Your task to perform on an android device: clear history in the chrome app Image 0: 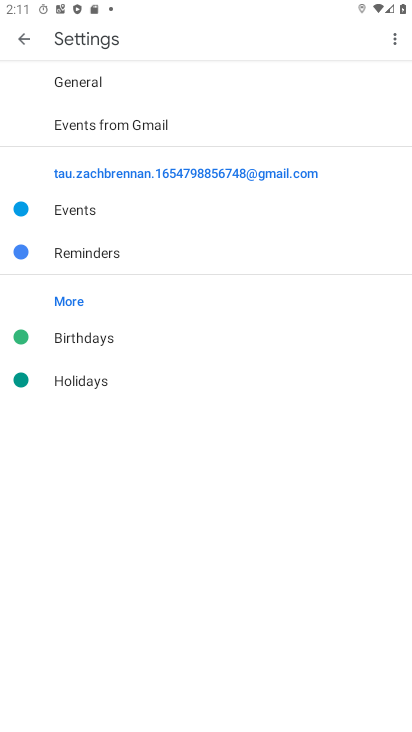
Step 0: press home button
Your task to perform on an android device: clear history in the chrome app Image 1: 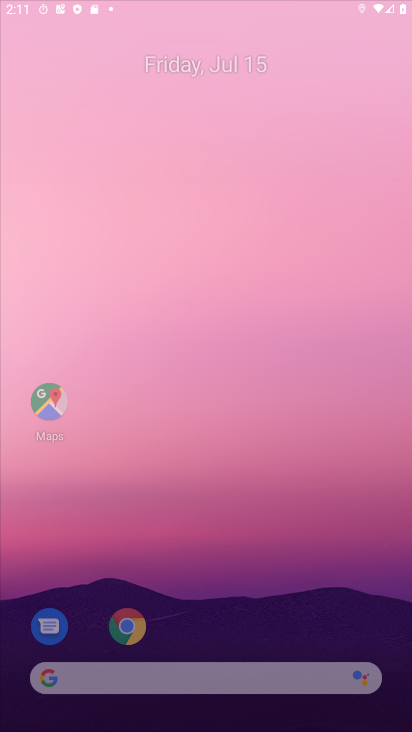
Step 1: drag from (366, 673) to (315, 4)
Your task to perform on an android device: clear history in the chrome app Image 2: 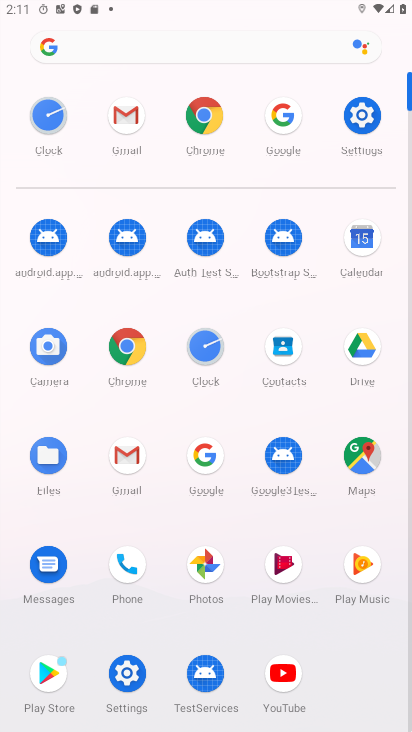
Step 2: click (217, 108)
Your task to perform on an android device: clear history in the chrome app Image 3: 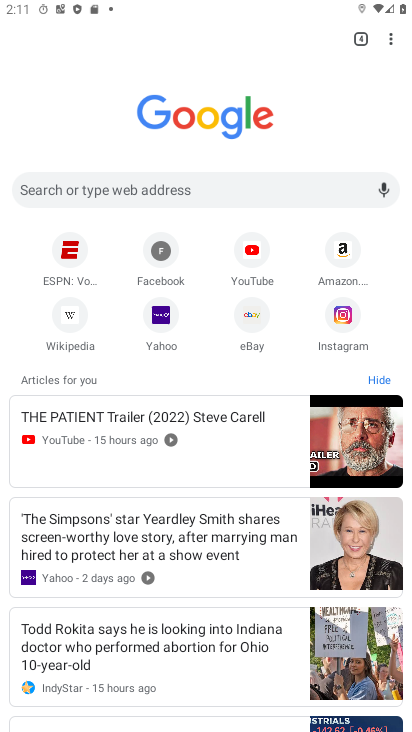
Step 3: click (389, 35)
Your task to perform on an android device: clear history in the chrome app Image 4: 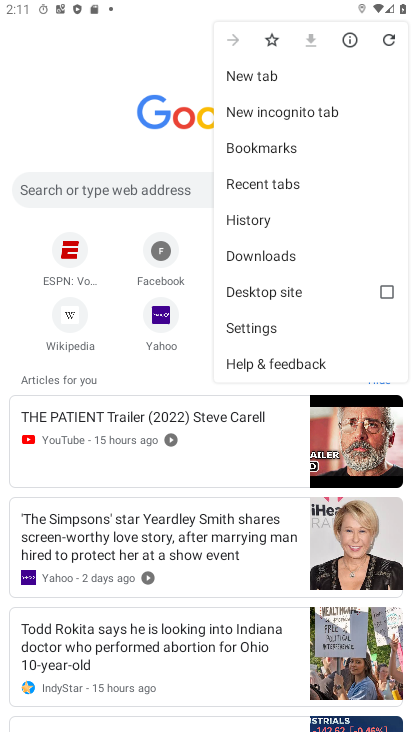
Step 4: click (267, 221)
Your task to perform on an android device: clear history in the chrome app Image 5: 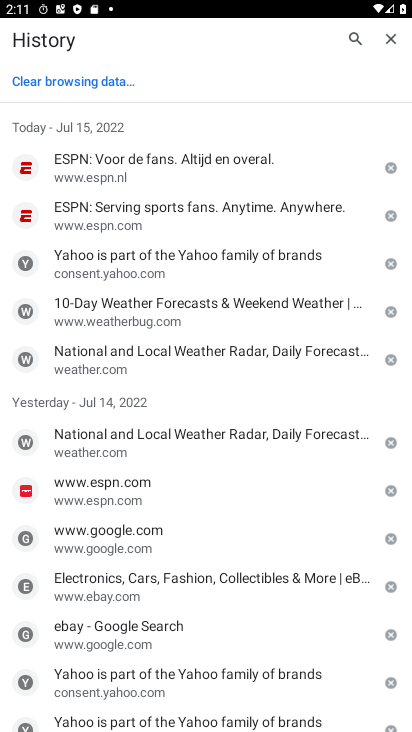
Step 5: click (64, 85)
Your task to perform on an android device: clear history in the chrome app Image 6: 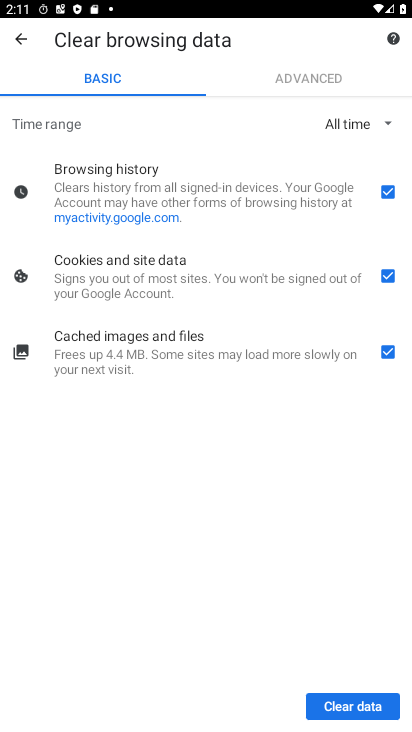
Step 6: click (342, 698)
Your task to perform on an android device: clear history in the chrome app Image 7: 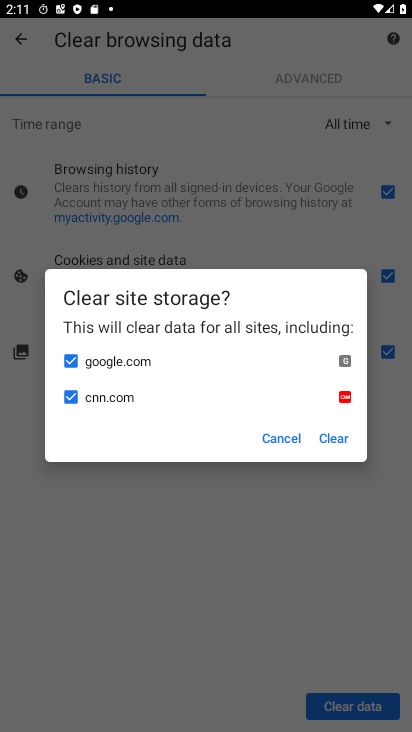
Step 7: click (337, 436)
Your task to perform on an android device: clear history in the chrome app Image 8: 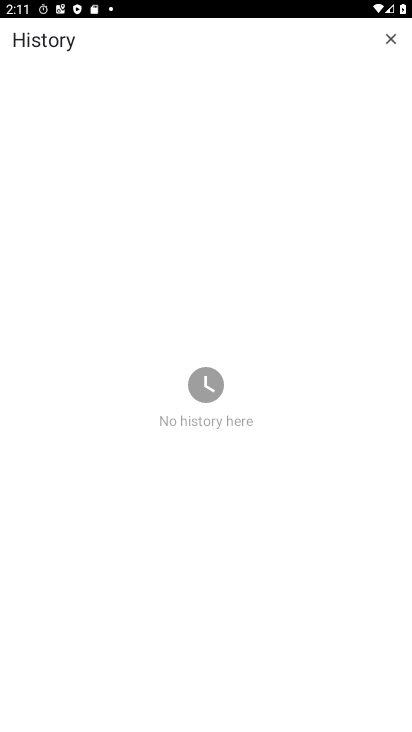
Step 8: task complete